Your task to perform on an android device: Add logitech g910 to the cart on costco, then select checkout. Image 0: 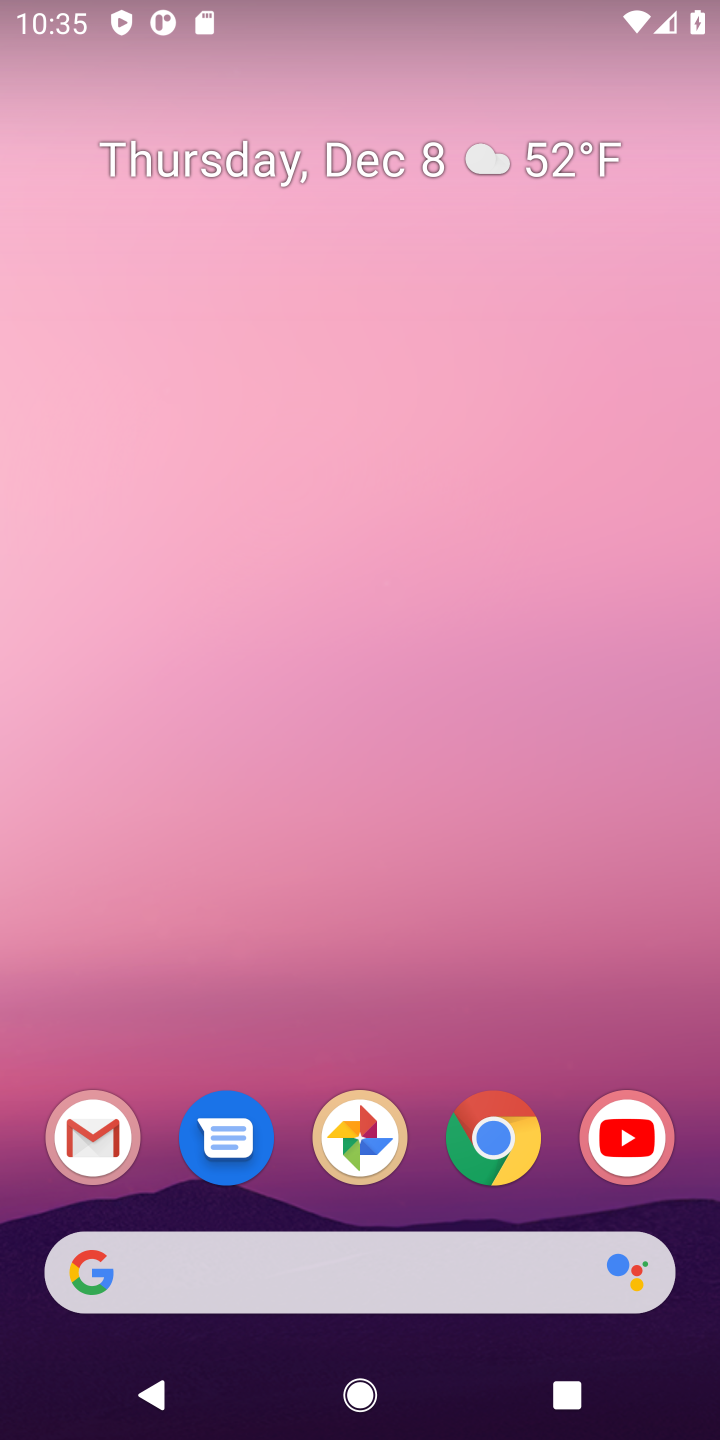
Step 0: click (499, 1161)
Your task to perform on an android device: Add logitech g910 to the cart on costco, then select checkout. Image 1: 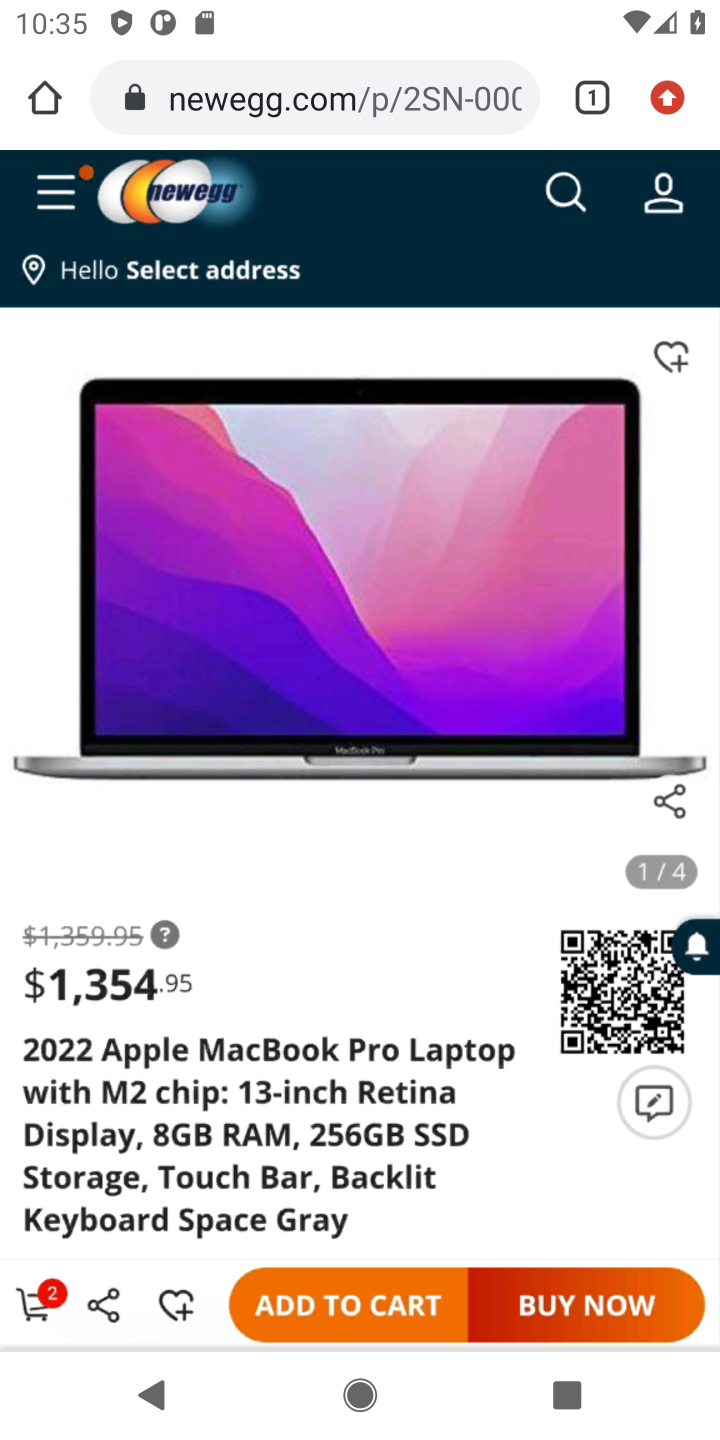
Step 1: click (326, 104)
Your task to perform on an android device: Add logitech g910 to the cart on costco, then select checkout. Image 2: 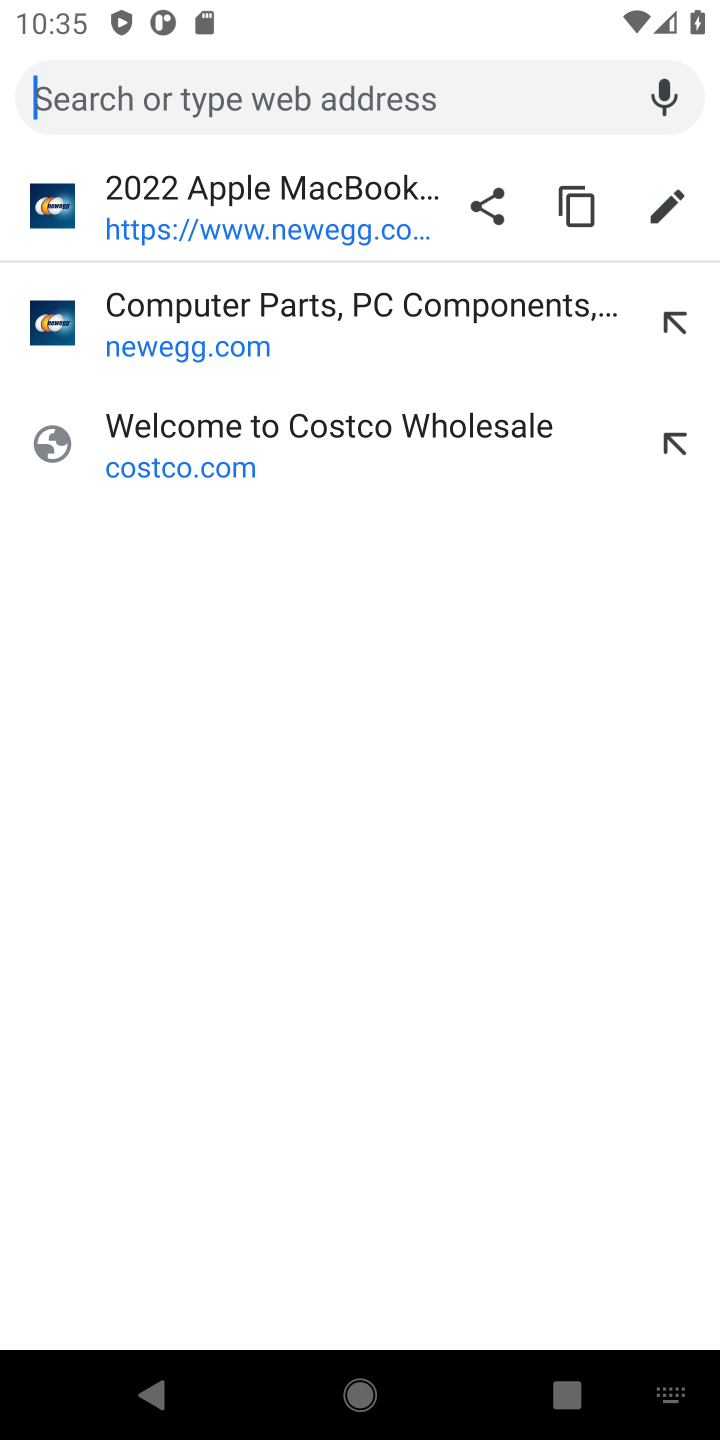
Step 2: type "costco"
Your task to perform on an android device: Add logitech g910 to the cart on costco, then select checkout. Image 3: 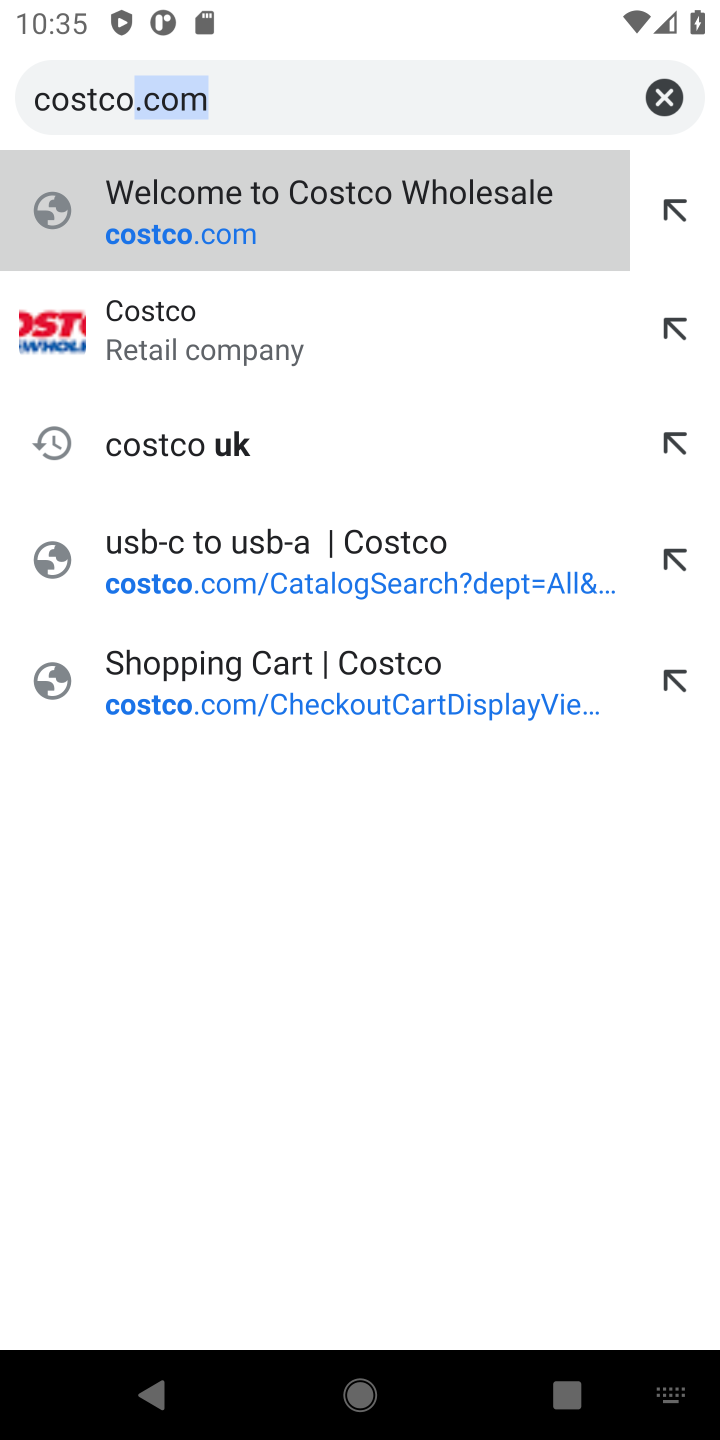
Step 3: press enter
Your task to perform on an android device: Add logitech g910 to the cart on costco, then select checkout. Image 4: 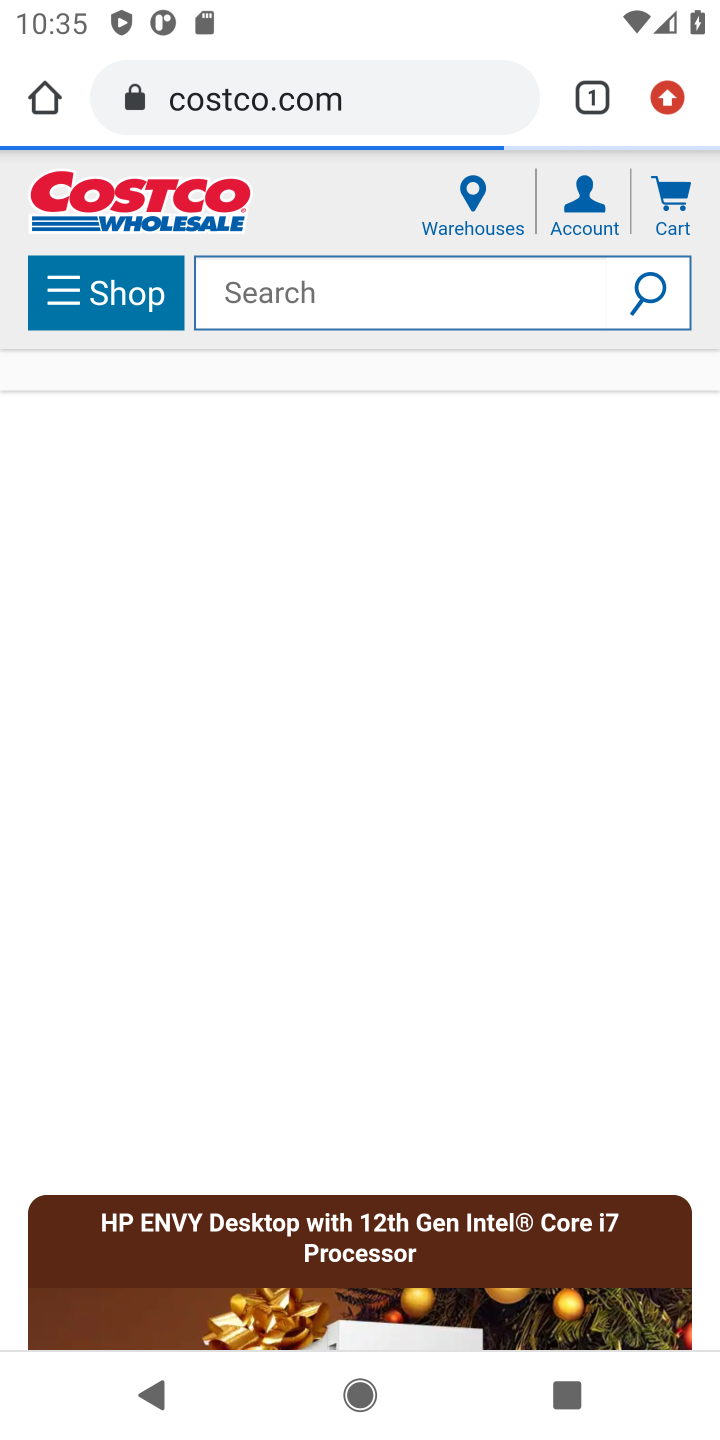
Step 4: press enter
Your task to perform on an android device: Add logitech g910 to the cart on costco, then select checkout. Image 5: 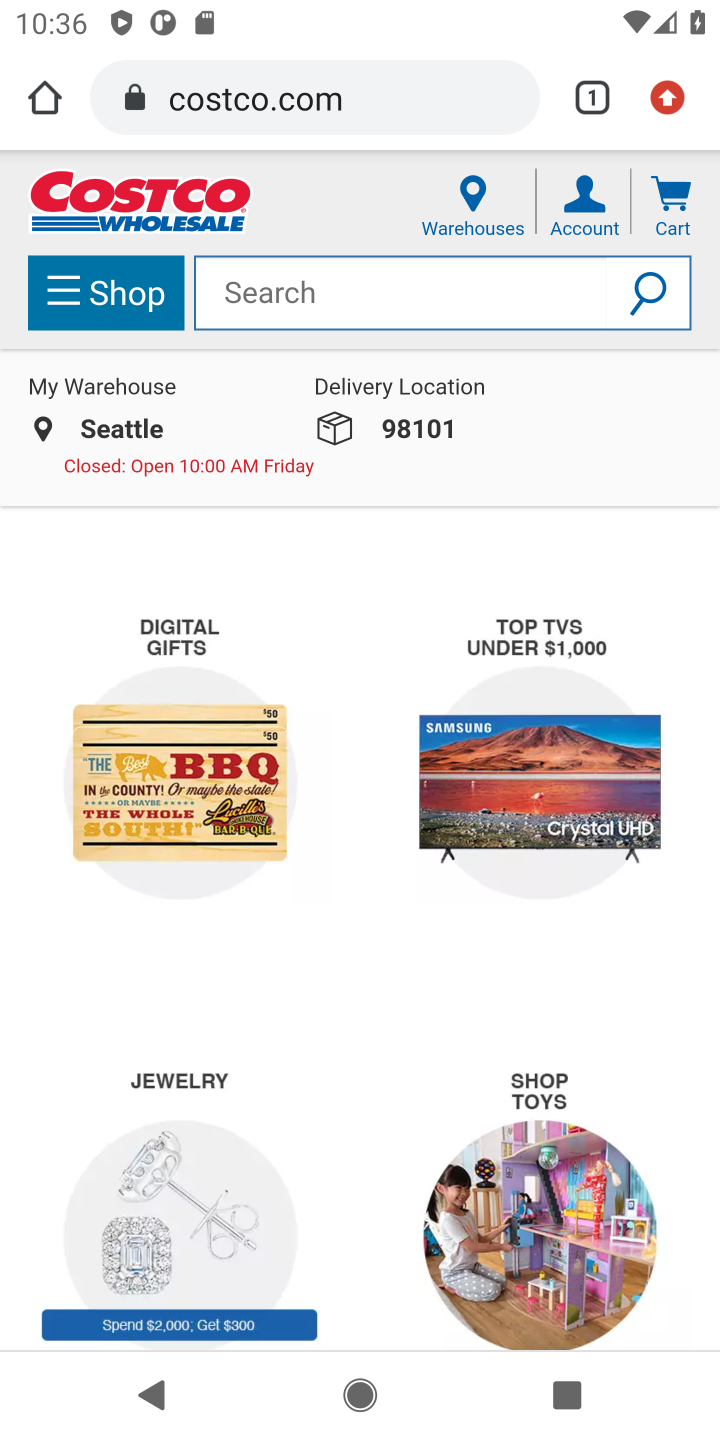
Step 5: click (349, 315)
Your task to perform on an android device: Add logitech g910 to the cart on costco, then select checkout. Image 6: 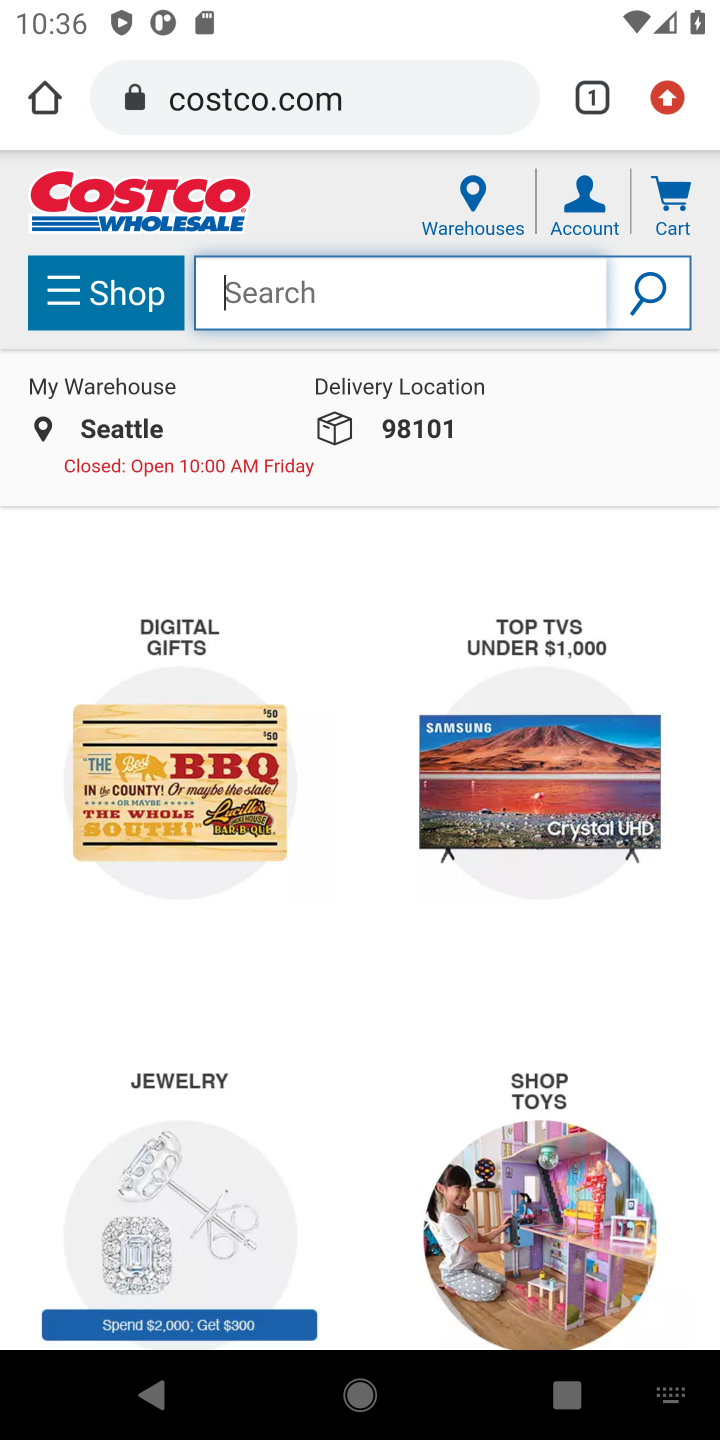
Step 6: type "logitech g910"
Your task to perform on an android device: Add logitech g910 to the cart on costco, then select checkout. Image 7: 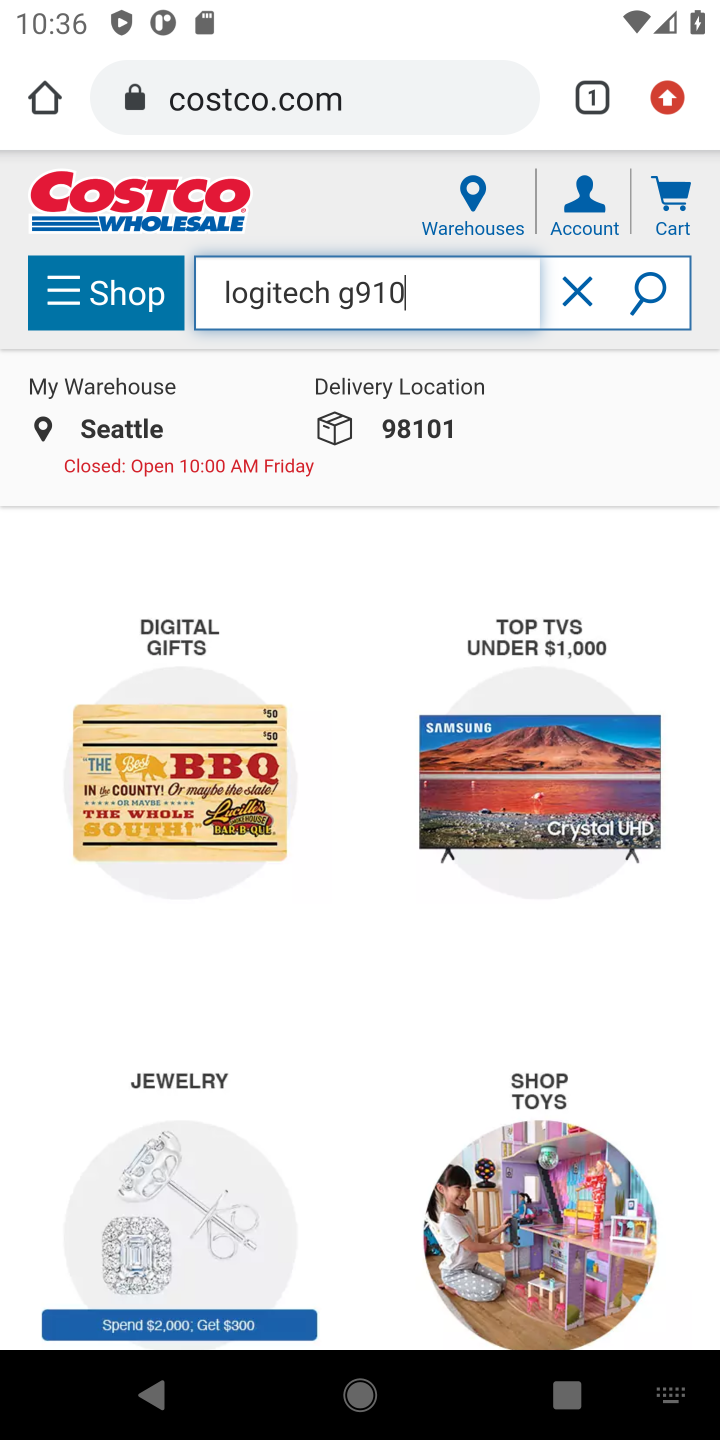
Step 7: press enter
Your task to perform on an android device: Add logitech g910 to the cart on costco, then select checkout. Image 8: 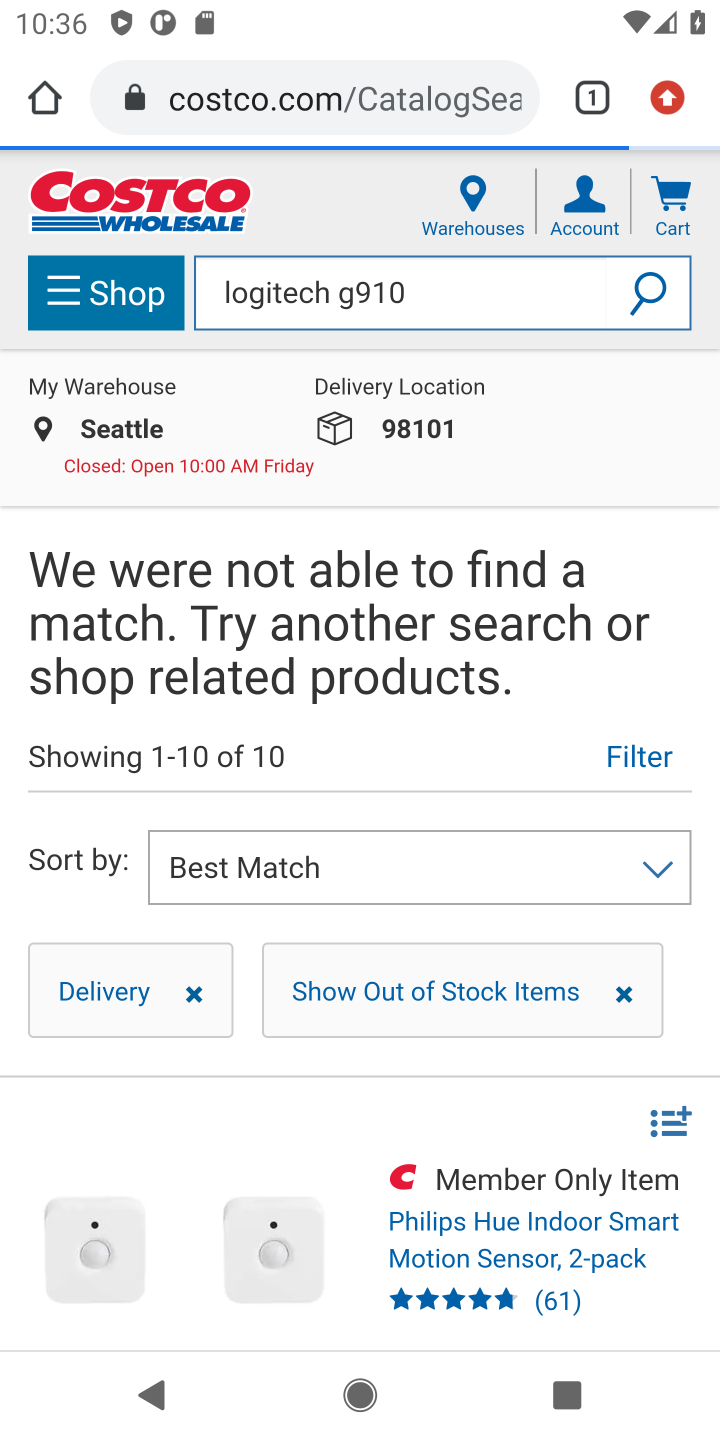
Step 8: task complete